Your task to perform on an android device: Open the phone app and click the voicemail tab. Image 0: 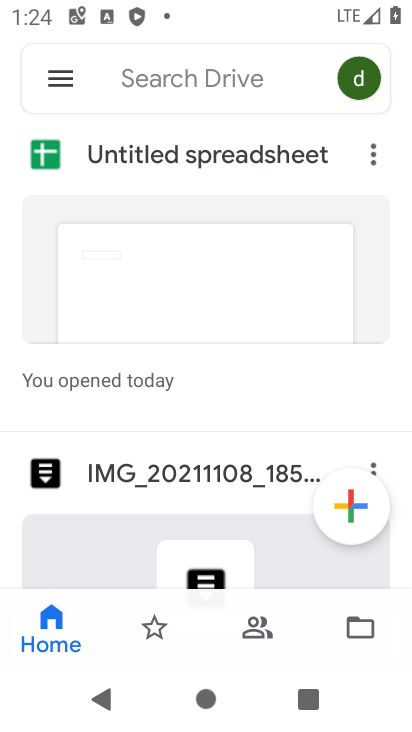
Step 0: press home button
Your task to perform on an android device: Open the phone app and click the voicemail tab. Image 1: 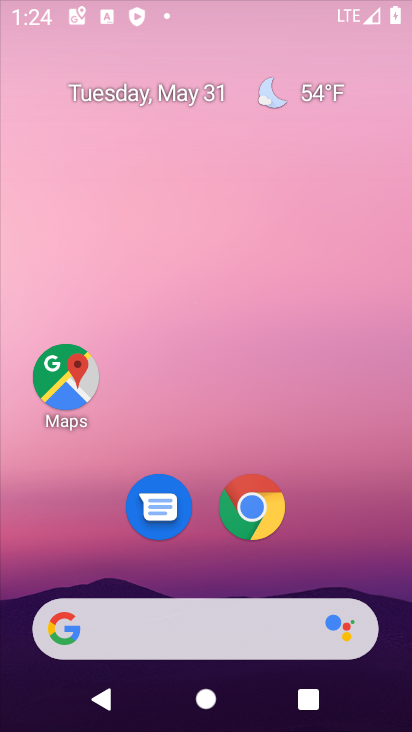
Step 1: drag from (394, 614) to (306, 8)
Your task to perform on an android device: Open the phone app and click the voicemail tab. Image 2: 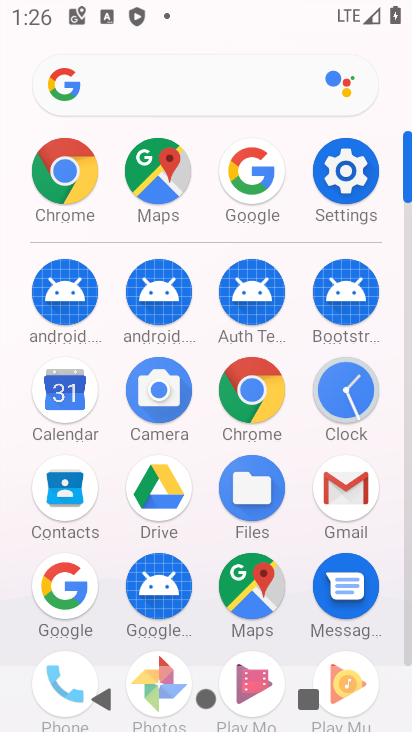
Step 2: drag from (95, 645) to (110, 135)
Your task to perform on an android device: Open the phone app and click the voicemail tab. Image 3: 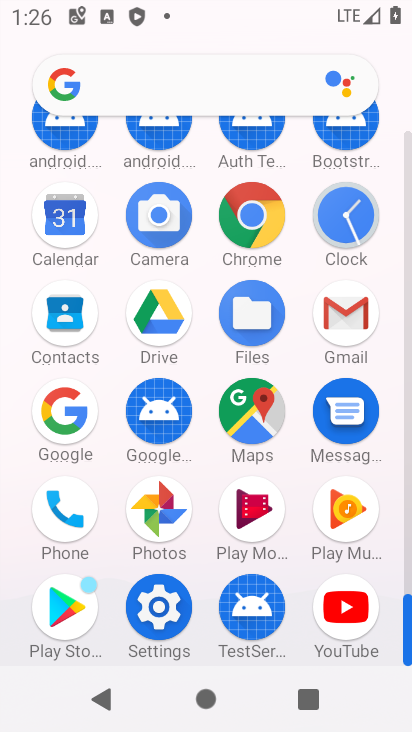
Step 3: click (74, 501)
Your task to perform on an android device: Open the phone app and click the voicemail tab. Image 4: 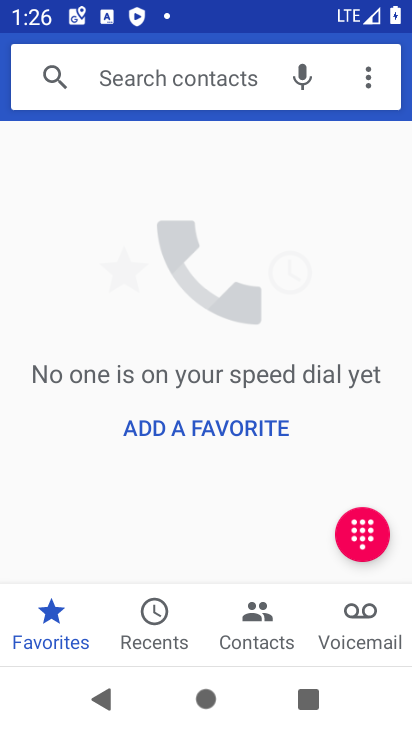
Step 4: click (362, 621)
Your task to perform on an android device: Open the phone app and click the voicemail tab. Image 5: 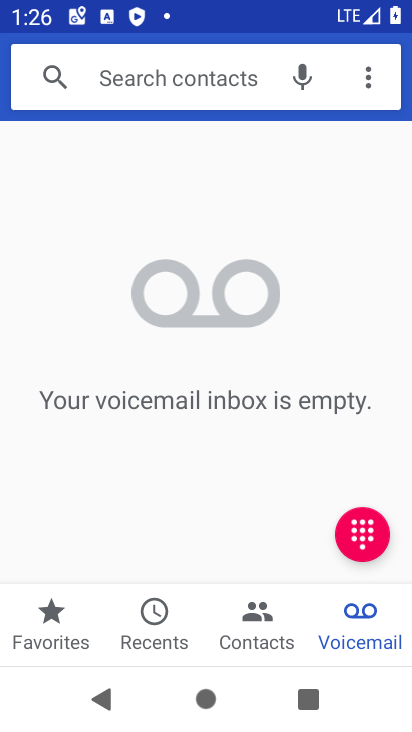
Step 5: task complete